Your task to perform on an android device: change the upload size in google photos Image 0: 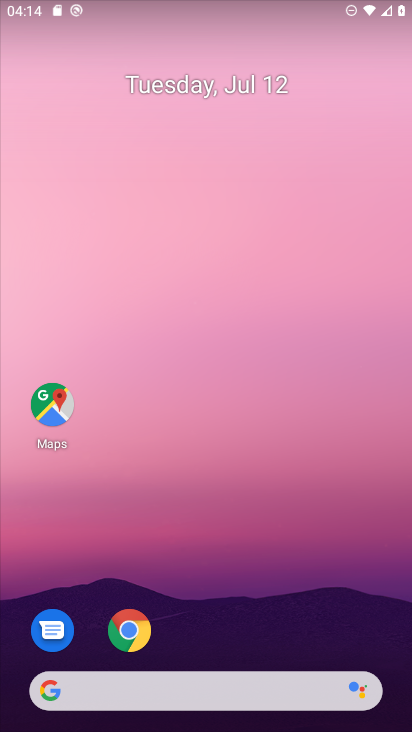
Step 0: drag from (388, 648) to (348, 319)
Your task to perform on an android device: change the upload size in google photos Image 1: 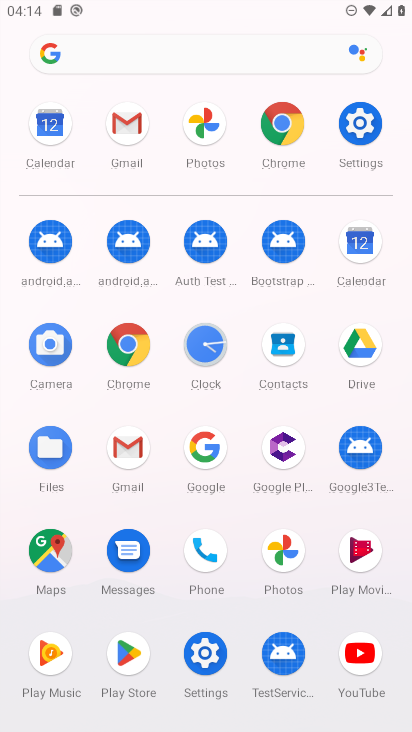
Step 1: click (282, 550)
Your task to perform on an android device: change the upload size in google photos Image 2: 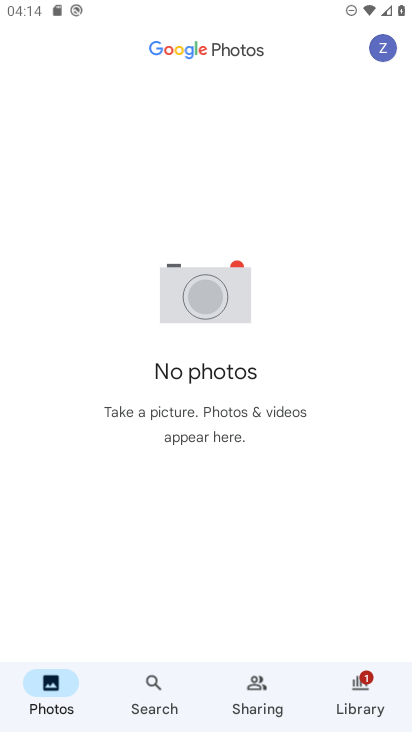
Step 2: click (377, 53)
Your task to perform on an android device: change the upload size in google photos Image 3: 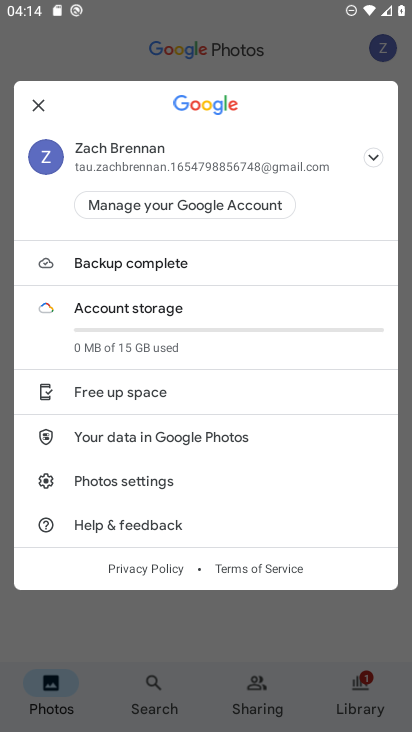
Step 3: click (94, 485)
Your task to perform on an android device: change the upload size in google photos Image 4: 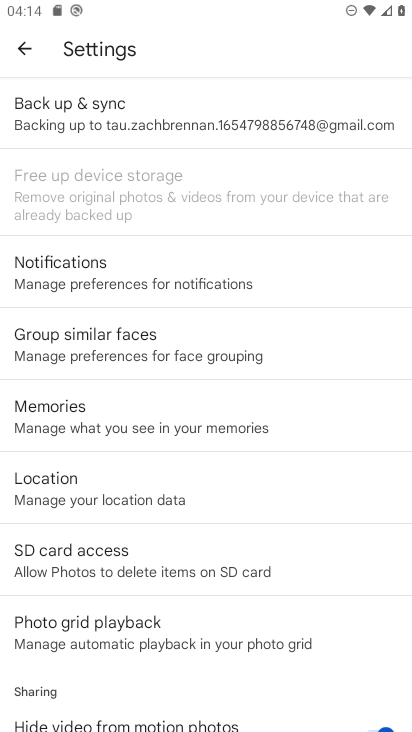
Step 4: click (70, 114)
Your task to perform on an android device: change the upload size in google photos Image 5: 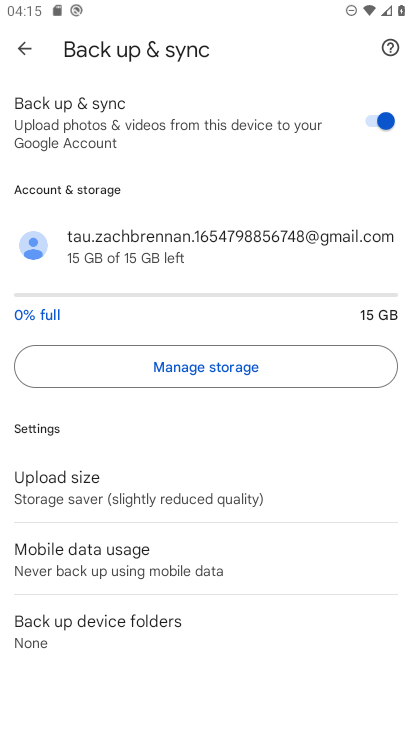
Step 5: click (72, 485)
Your task to perform on an android device: change the upload size in google photos Image 6: 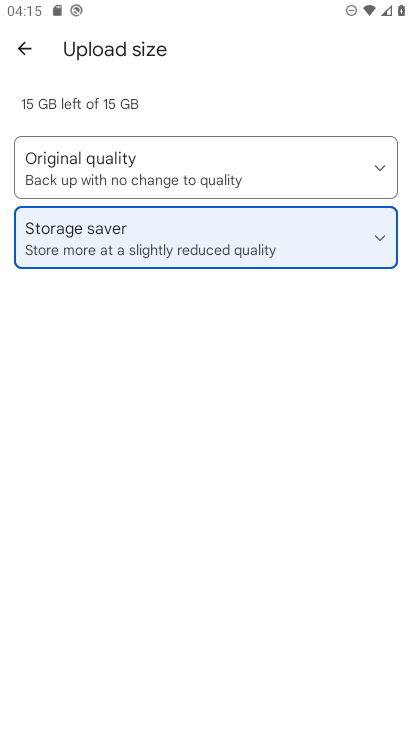
Step 6: click (92, 157)
Your task to perform on an android device: change the upload size in google photos Image 7: 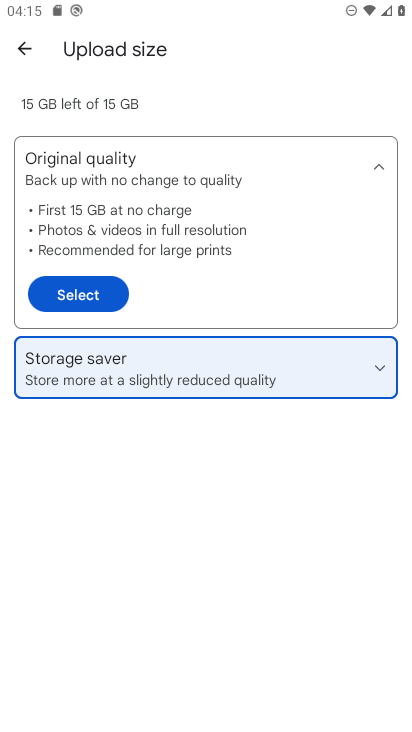
Step 7: click (77, 293)
Your task to perform on an android device: change the upload size in google photos Image 8: 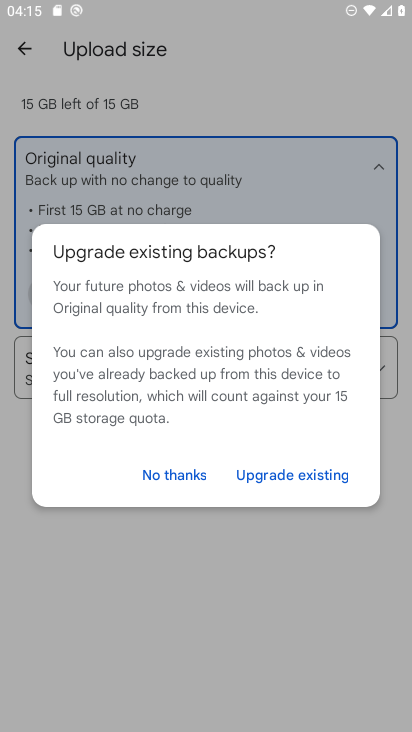
Step 8: click (280, 473)
Your task to perform on an android device: change the upload size in google photos Image 9: 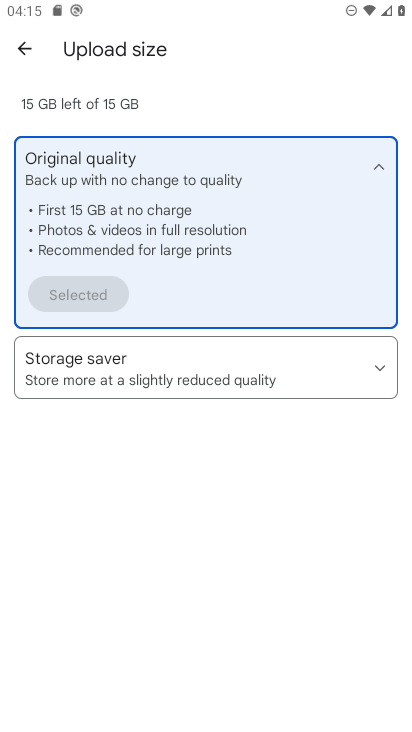
Step 9: task complete